Your task to perform on an android device: Open display settings Image 0: 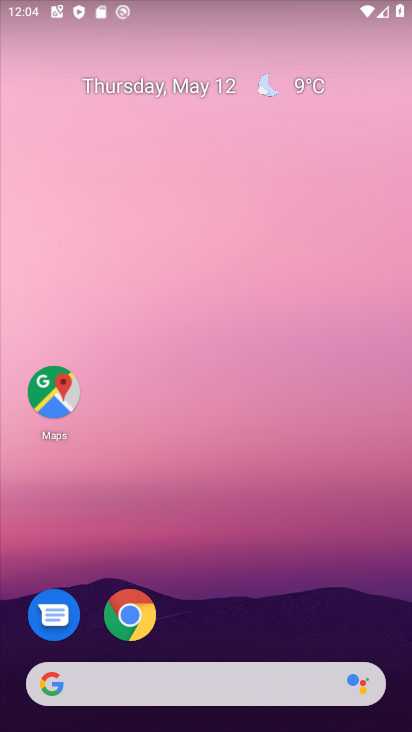
Step 0: drag from (276, 432) to (282, 114)
Your task to perform on an android device: Open display settings Image 1: 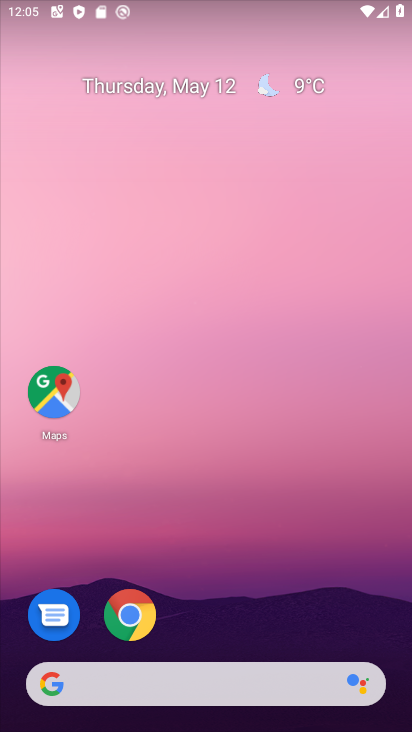
Step 1: drag from (222, 548) to (257, 67)
Your task to perform on an android device: Open display settings Image 2: 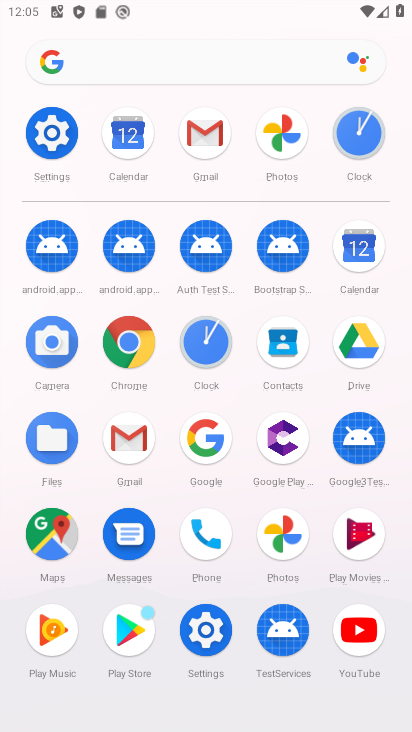
Step 2: click (55, 124)
Your task to perform on an android device: Open display settings Image 3: 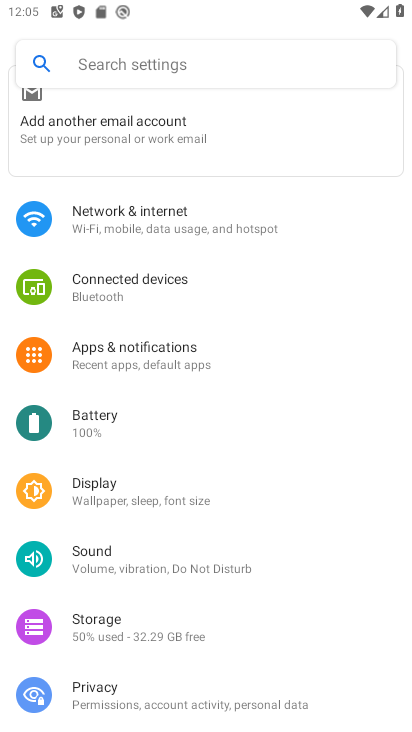
Step 3: click (184, 501)
Your task to perform on an android device: Open display settings Image 4: 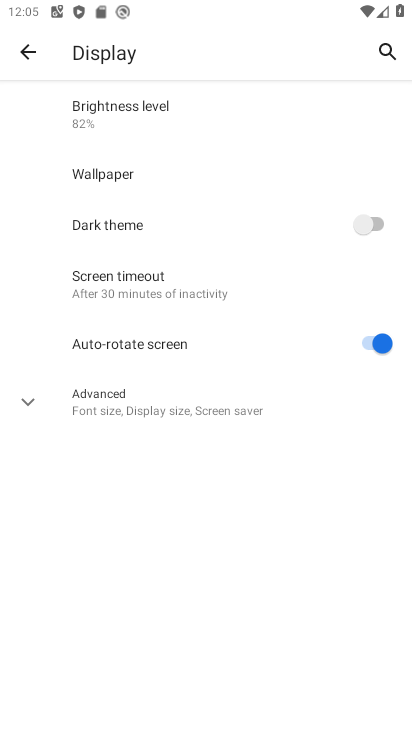
Step 4: task complete